Your task to perform on an android device: What's the weather today? Image 0: 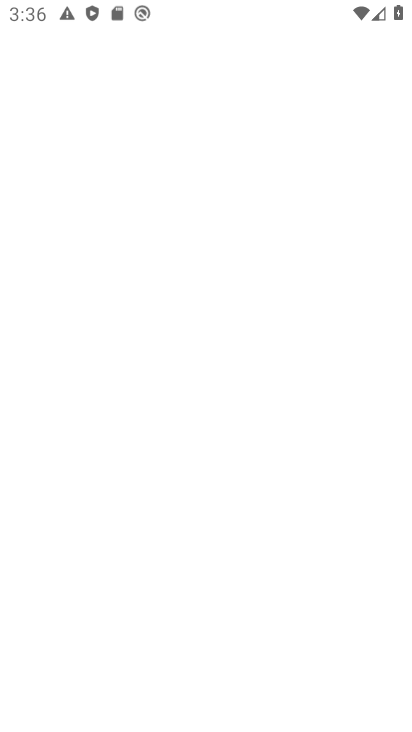
Step 0: drag from (292, 572) to (329, 178)
Your task to perform on an android device: What's the weather today? Image 1: 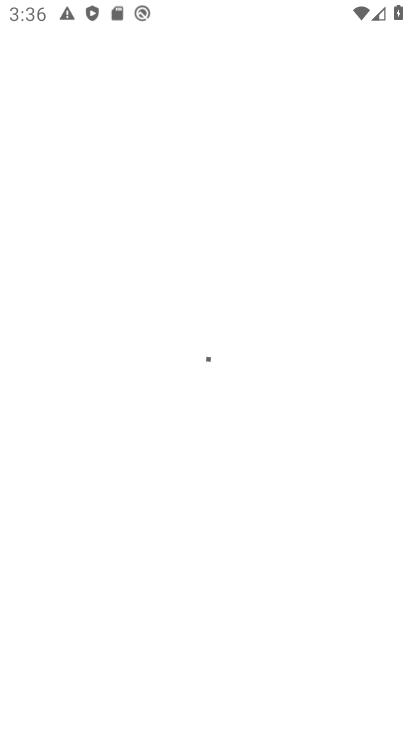
Step 1: press home button
Your task to perform on an android device: What's the weather today? Image 2: 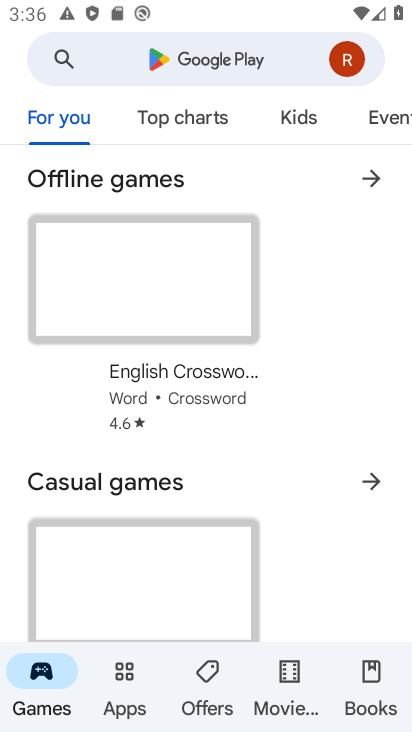
Step 2: press home button
Your task to perform on an android device: What's the weather today? Image 3: 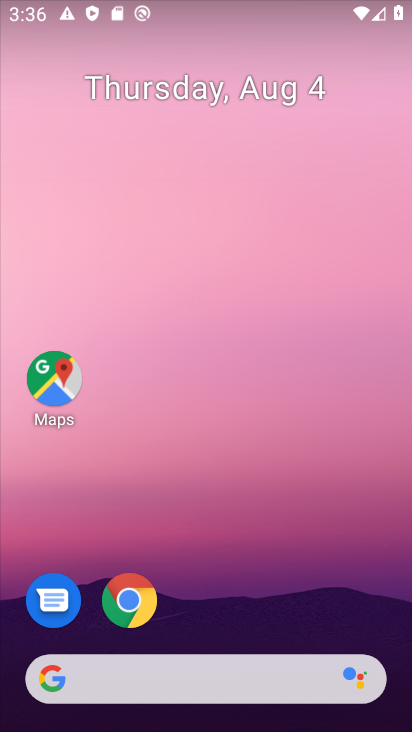
Step 3: press home button
Your task to perform on an android device: What's the weather today? Image 4: 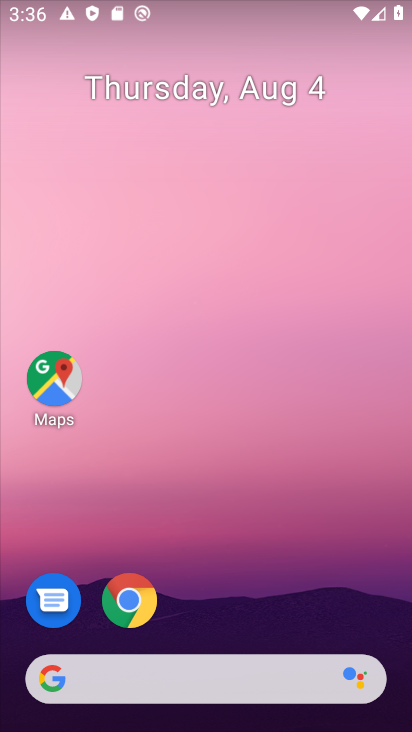
Step 4: drag from (216, 605) to (260, 253)
Your task to perform on an android device: What's the weather today? Image 5: 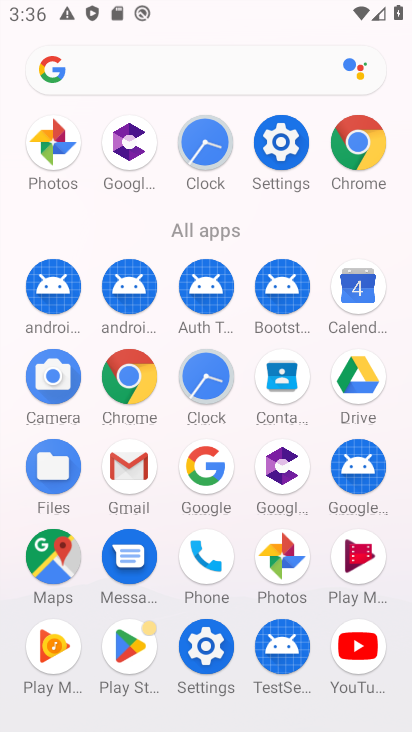
Step 5: click (360, 140)
Your task to perform on an android device: What's the weather today? Image 6: 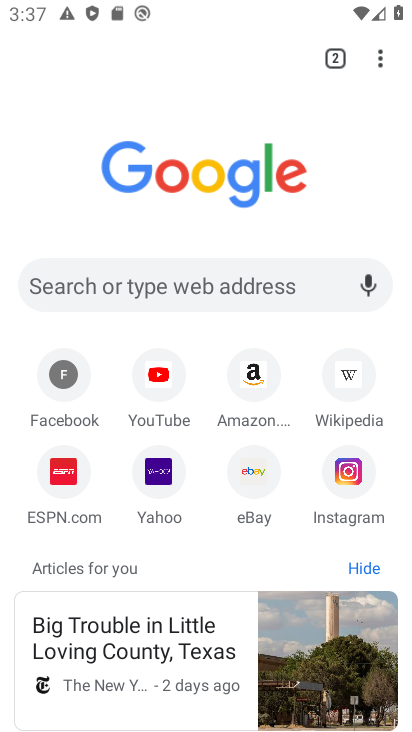
Step 6: click (302, 285)
Your task to perform on an android device: What's the weather today? Image 7: 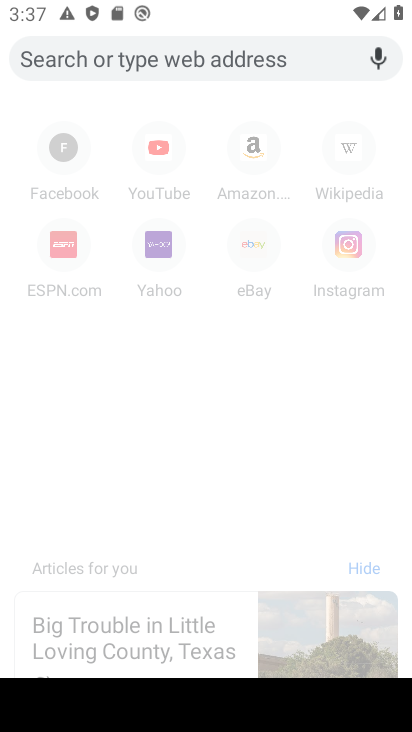
Step 7: type "weather"
Your task to perform on an android device: What's the weather today? Image 8: 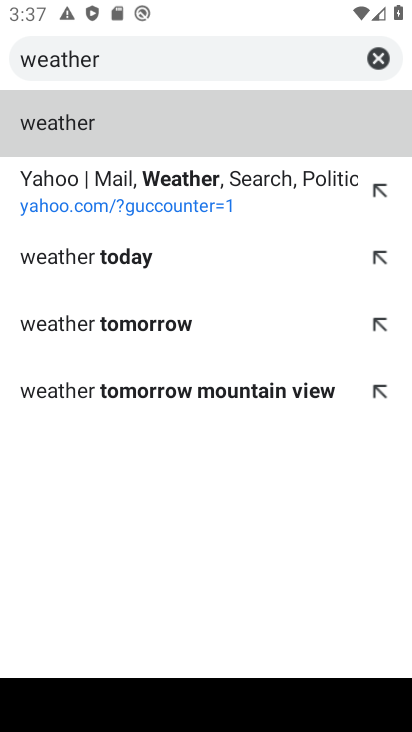
Step 8: click (99, 129)
Your task to perform on an android device: What's the weather today? Image 9: 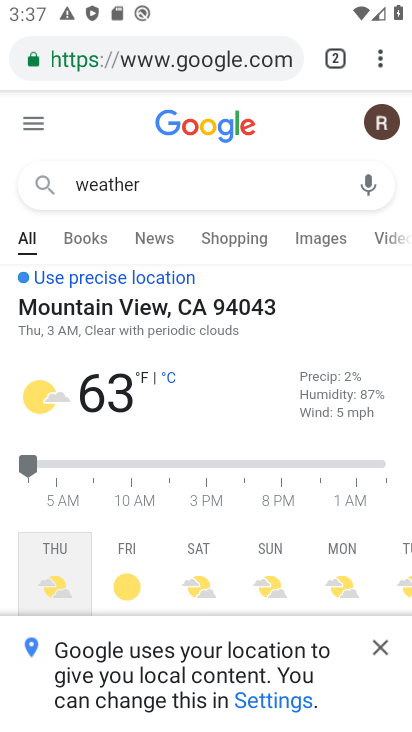
Step 9: task complete